Your task to perform on an android device: turn off javascript in the chrome app Image 0: 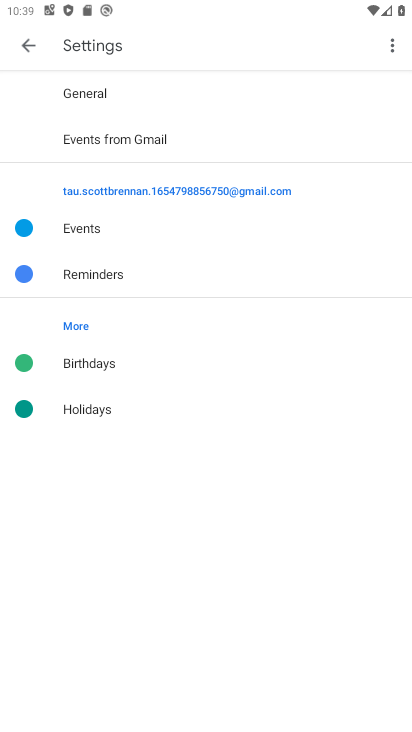
Step 0: press home button
Your task to perform on an android device: turn off javascript in the chrome app Image 1: 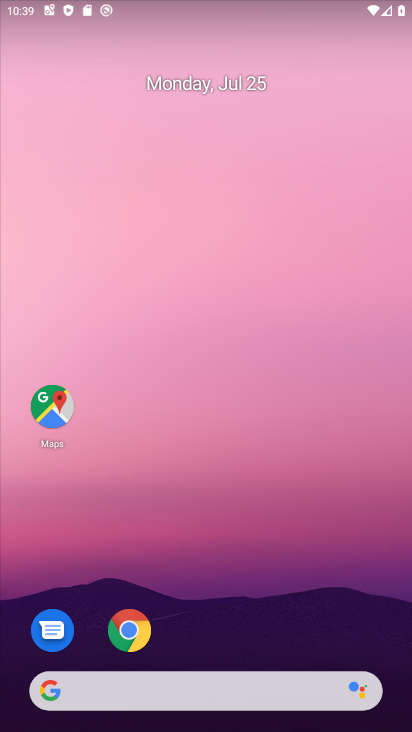
Step 1: drag from (384, 589) to (377, 122)
Your task to perform on an android device: turn off javascript in the chrome app Image 2: 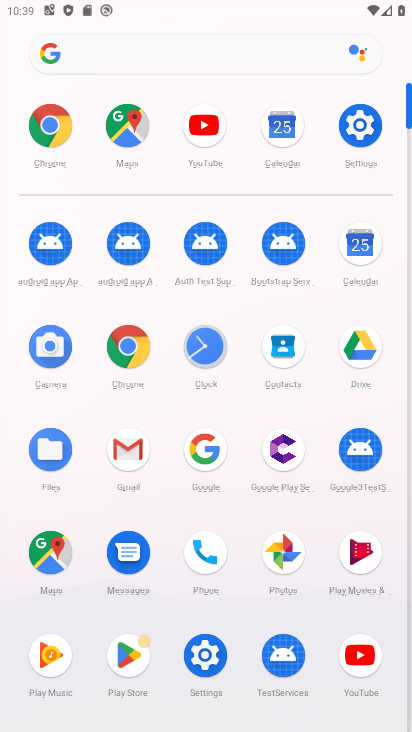
Step 2: click (129, 342)
Your task to perform on an android device: turn off javascript in the chrome app Image 3: 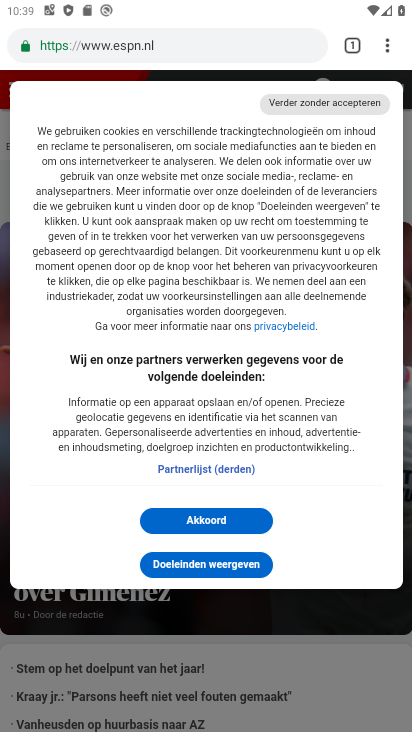
Step 3: click (385, 46)
Your task to perform on an android device: turn off javascript in the chrome app Image 4: 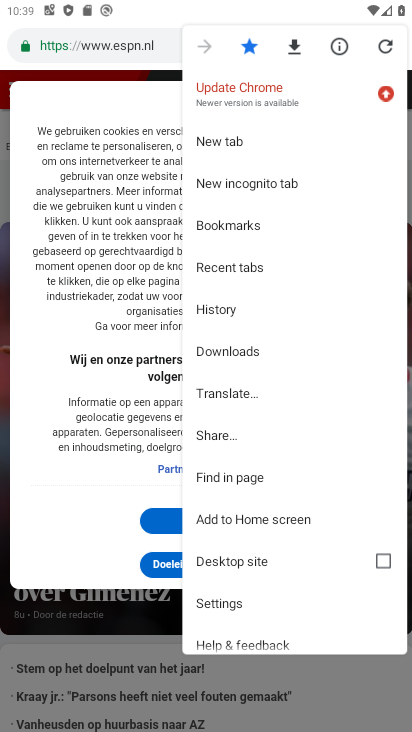
Step 4: click (236, 597)
Your task to perform on an android device: turn off javascript in the chrome app Image 5: 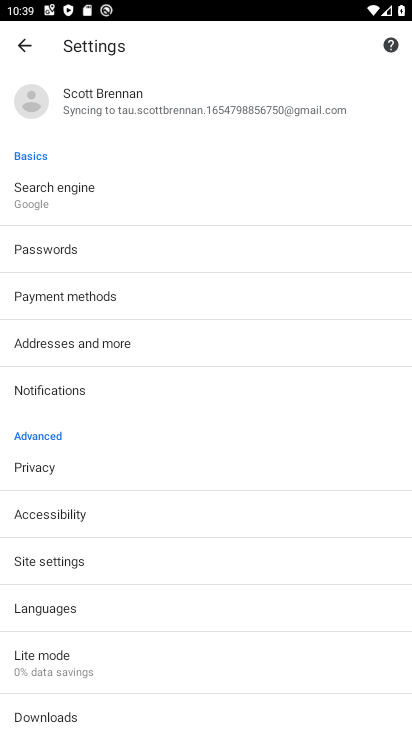
Step 5: drag from (320, 575) to (335, 448)
Your task to perform on an android device: turn off javascript in the chrome app Image 6: 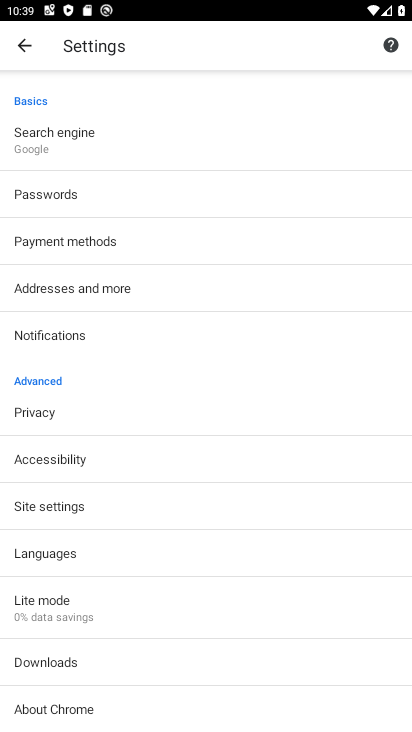
Step 6: click (273, 505)
Your task to perform on an android device: turn off javascript in the chrome app Image 7: 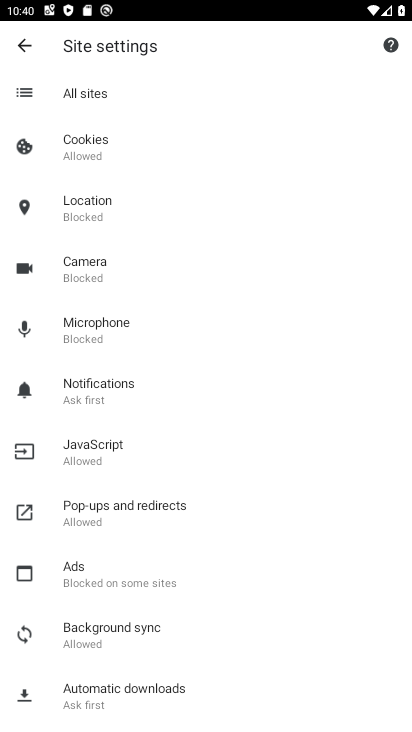
Step 7: drag from (297, 515) to (317, 425)
Your task to perform on an android device: turn off javascript in the chrome app Image 8: 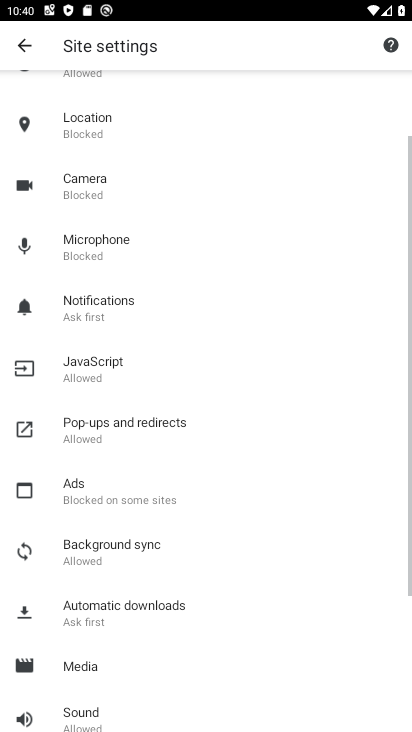
Step 8: drag from (316, 542) to (321, 422)
Your task to perform on an android device: turn off javascript in the chrome app Image 9: 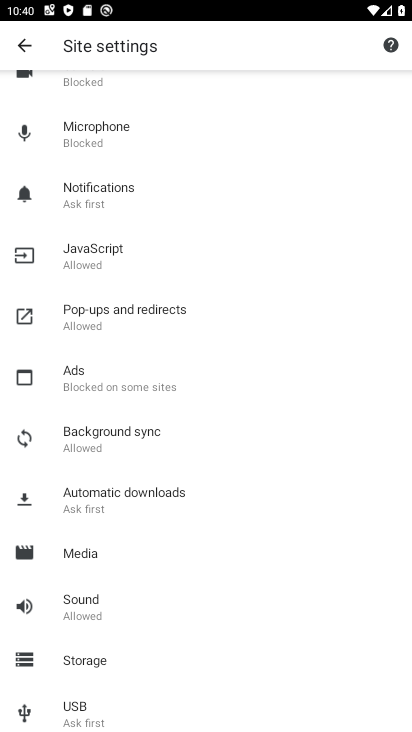
Step 9: drag from (325, 543) to (333, 469)
Your task to perform on an android device: turn off javascript in the chrome app Image 10: 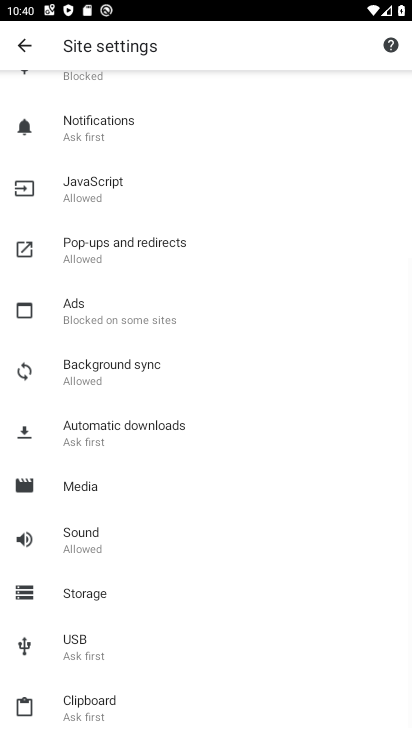
Step 10: drag from (338, 573) to (344, 453)
Your task to perform on an android device: turn off javascript in the chrome app Image 11: 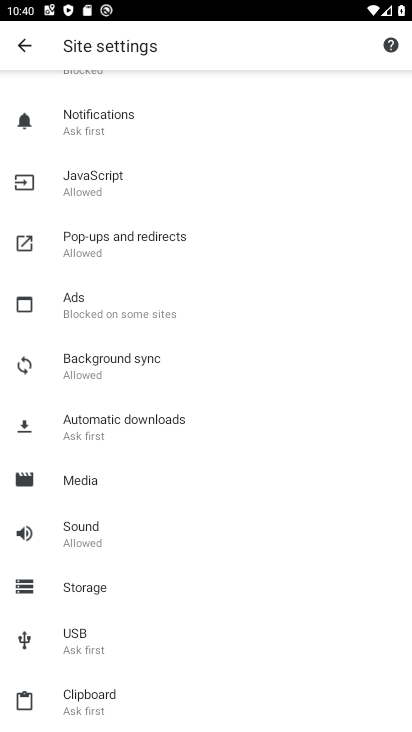
Step 11: drag from (341, 345) to (339, 421)
Your task to perform on an android device: turn off javascript in the chrome app Image 12: 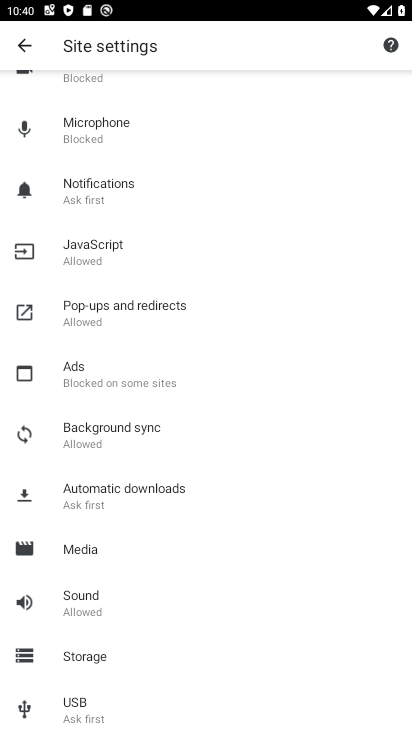
Step 12: drag from (339, 284) to (337, 460)
Your task to perform on an android device: turn off javascript in the chrome app Image 13: 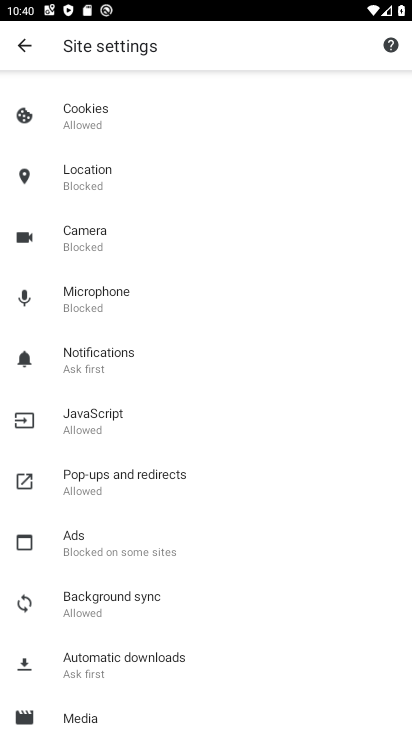
Step 13: drag from (317, 286) to (316, 440)
Your task to perform on an android device: turn off javascript in the chrome app Image 14: 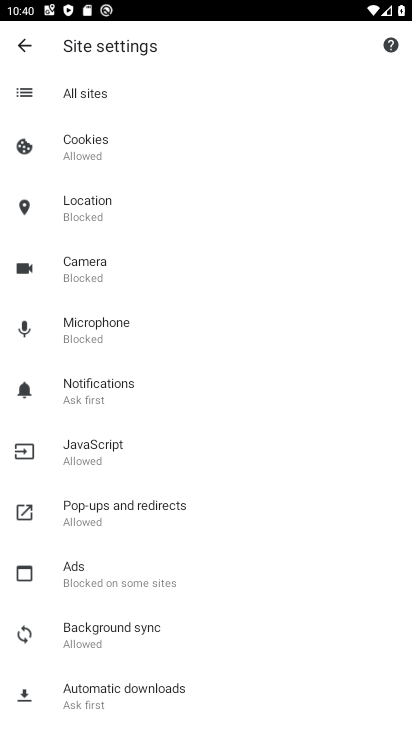
Step 14: click (208, 454)
Your task to perform on an android device: turn off javascript in the chrome app Image 15: 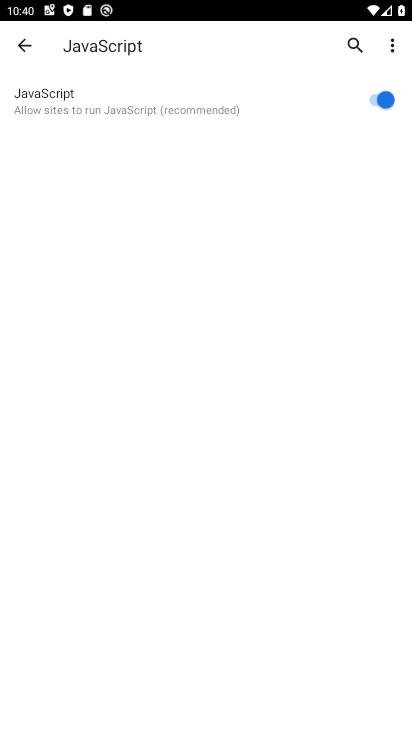
Step 15: click (385, 100)
Your task to perform on an android device: turn off javascript in the chrome app Image 16: 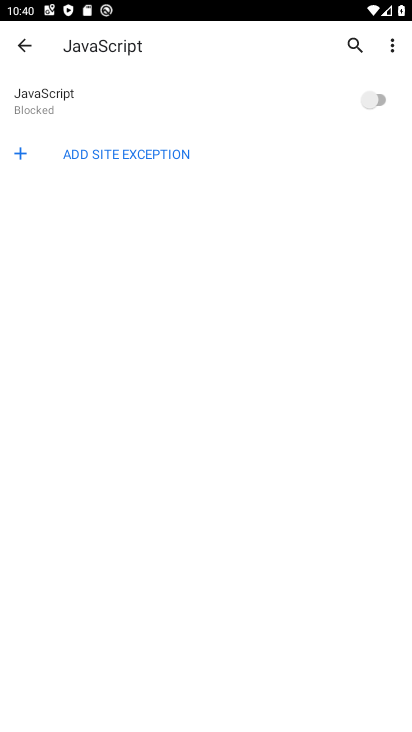
Step 16: task complete